Your task to perform on an android device: Search for hotels in Denver Image 0: 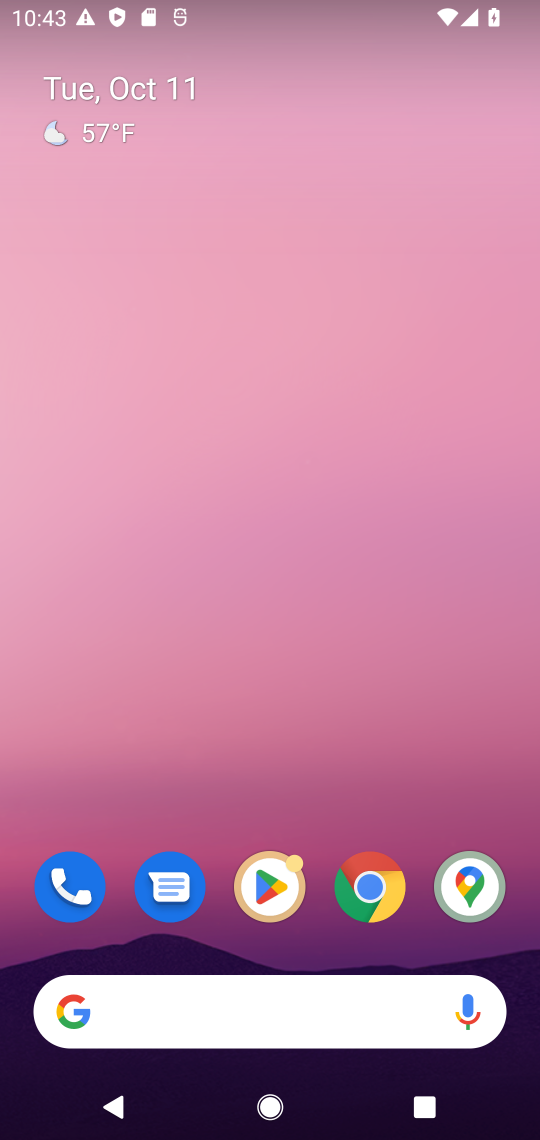
Step 0: press home button
Your task to perform on an android device: Search for hotels in Denver Image 1: 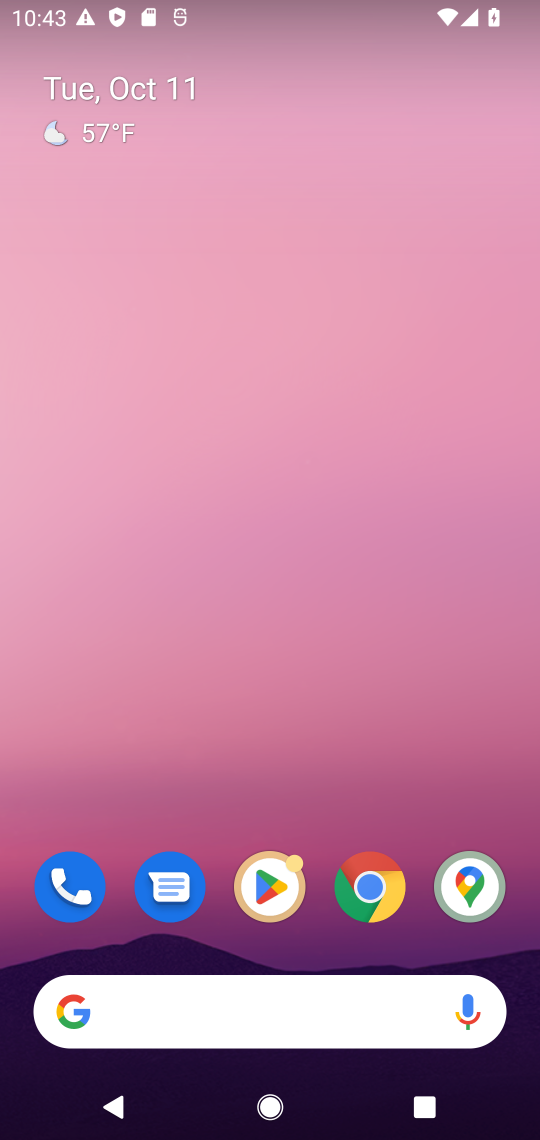
Step 1: click (280, 1015)
Your task to perform on an android device: Search for hotels in Denver Image 2: 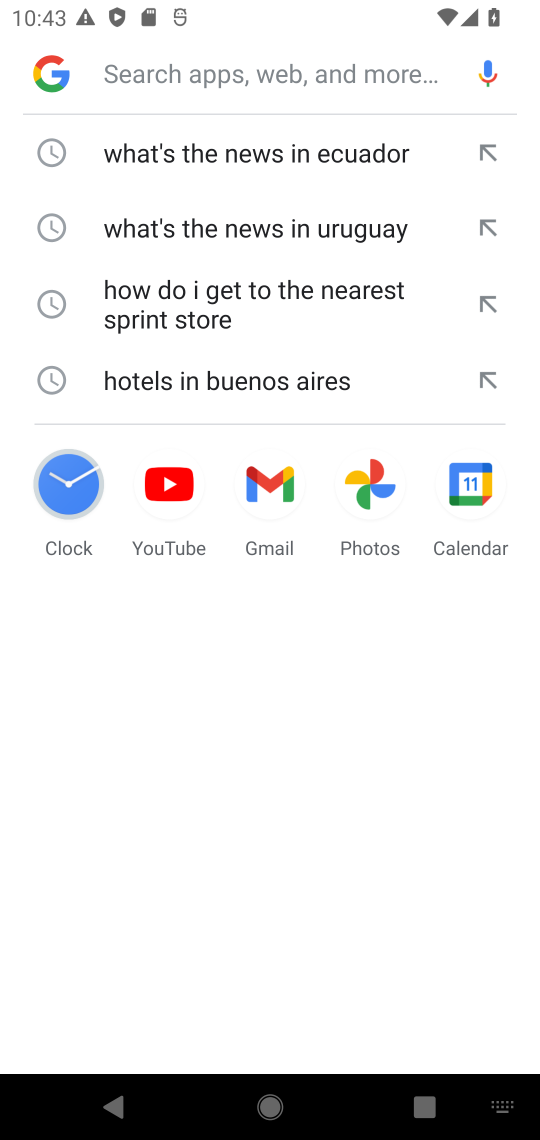
Step 2: type "hotels in Denver"
Your task to perform on an android device: Search for hotels in Denver Image 3: 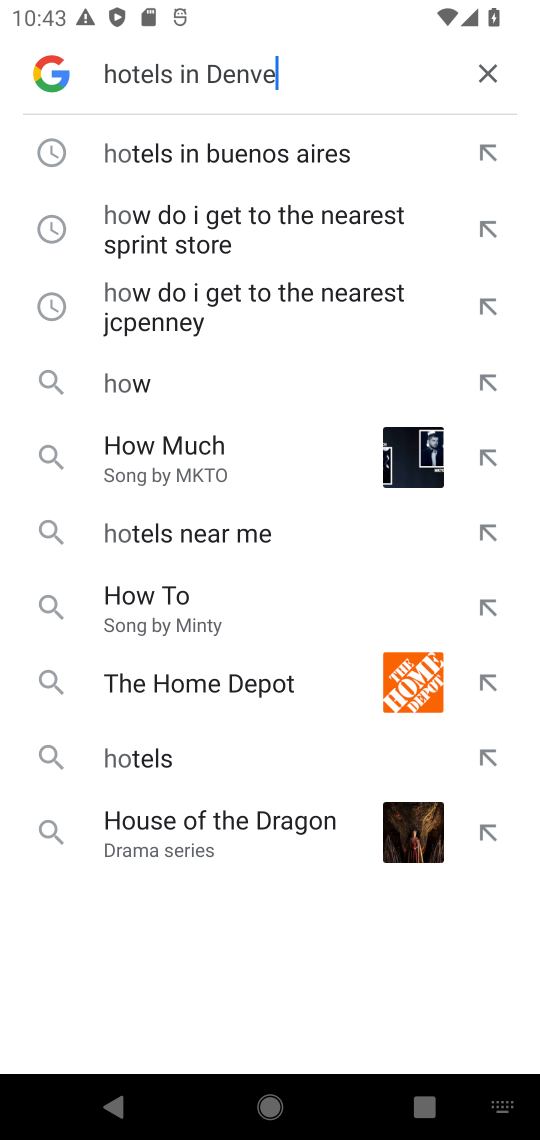
Step 3: press enter
Your task to perform on an android device: Search for hotels in Denver Image 4: 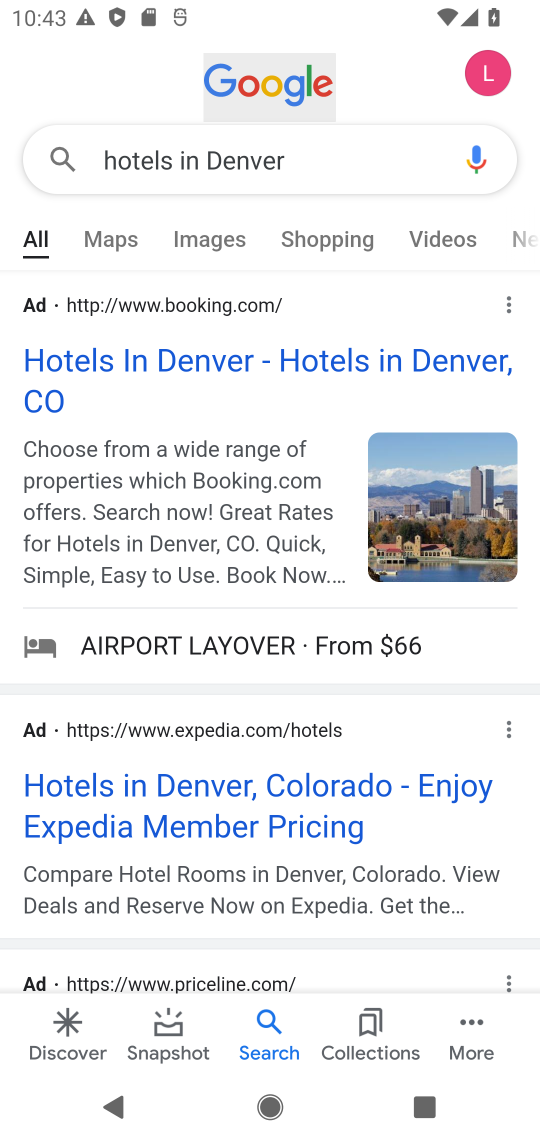
Step 4: click (253, 372)
Your task to perform on an android device: Search for hotels in Denver Image 5: 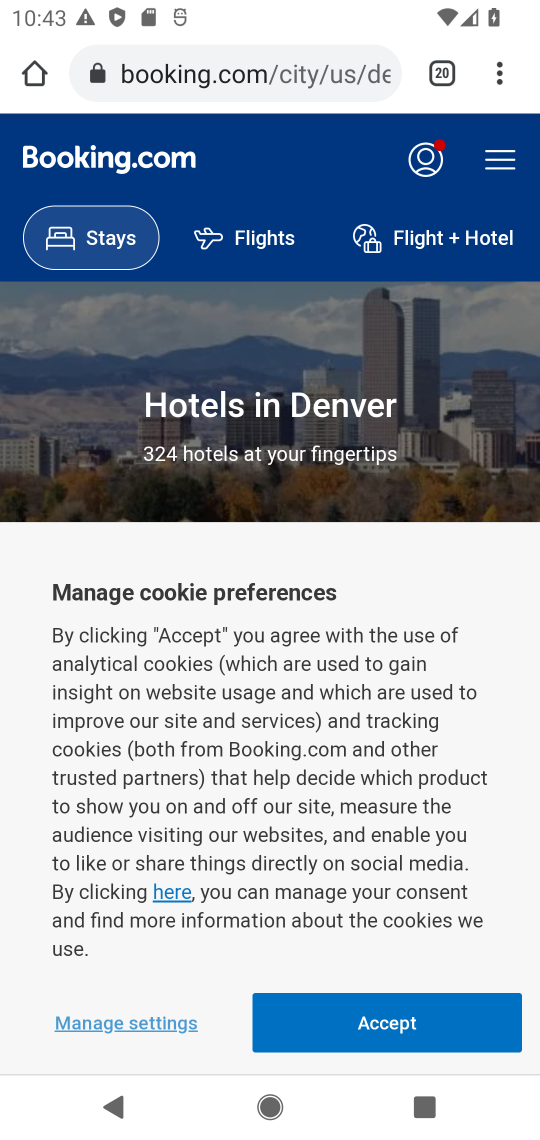
Step 5: click (415, 1026)
Your task to perform on an android device: Search for hotels in Denver Image 6: 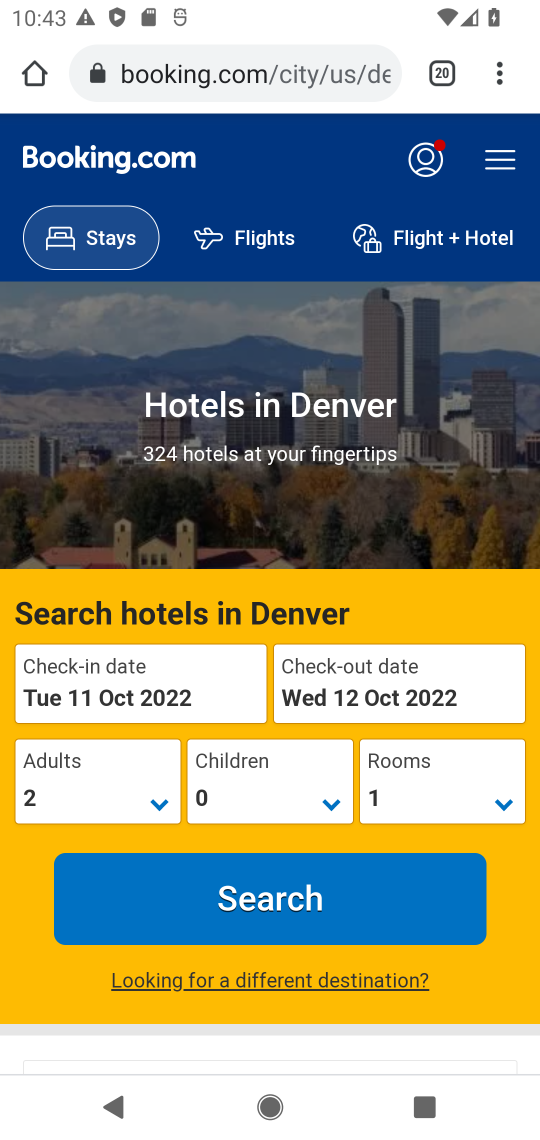
Step 6: click (287, 908)
Your task to perform on an android device: Search for hotels in Denver Image 7: 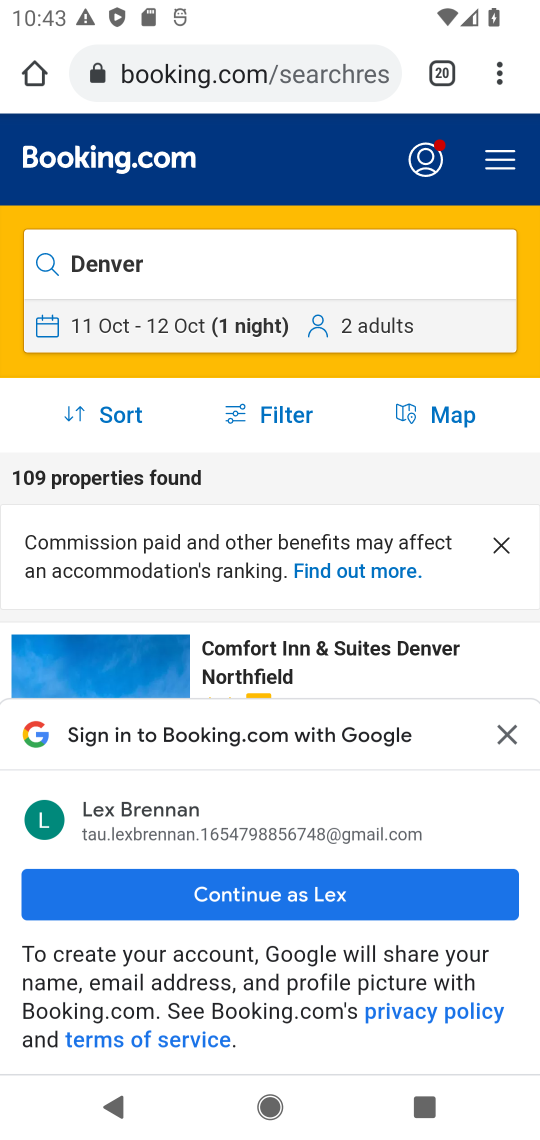
Step 7: task complete